Your task to perform on an android device: toggle airplane mode Image 0: 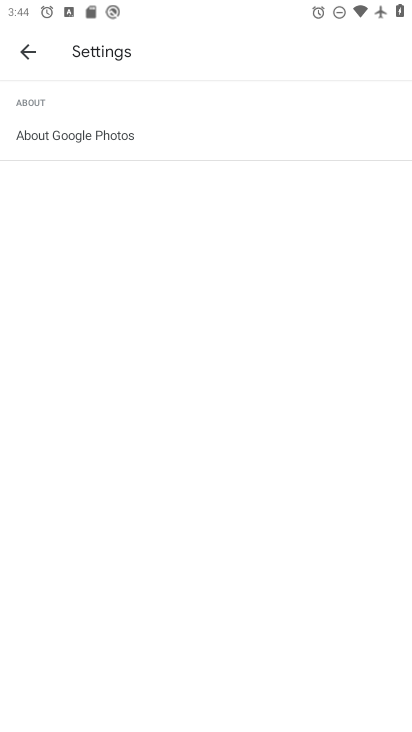
Step 0: press home button
Your task to perform on an android device: toggle airplane mode Image 1: 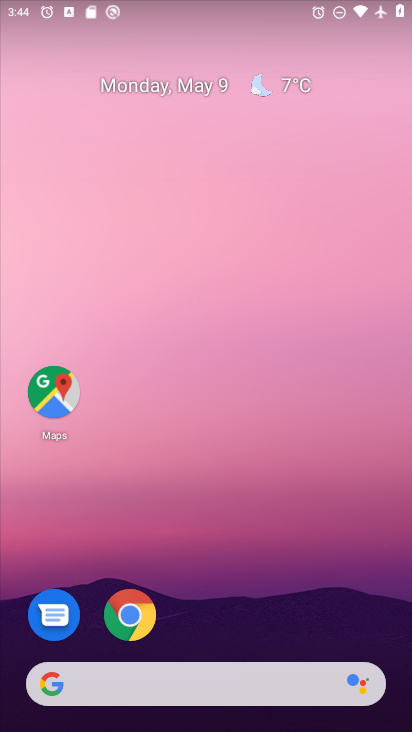
Step 1: drag from (359, 647) to (304, 14)
Your task to perform on an android device: toggle airplane mode Image 2: 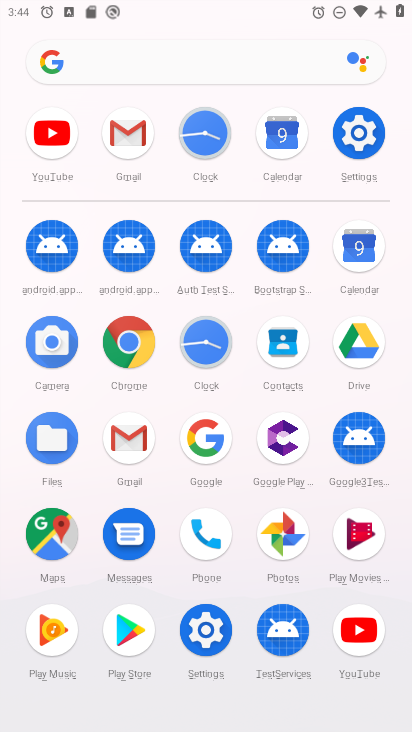
Step 2: click (204, 631)
Your task to perform on an android device: toggle airplane mode Image 3: 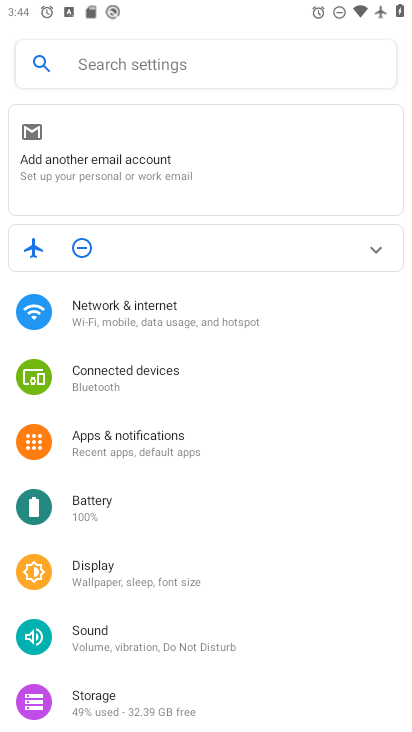
Step 3: click (134, 311)
Your task to perform on an android device: toggle airplane mode Image 4: 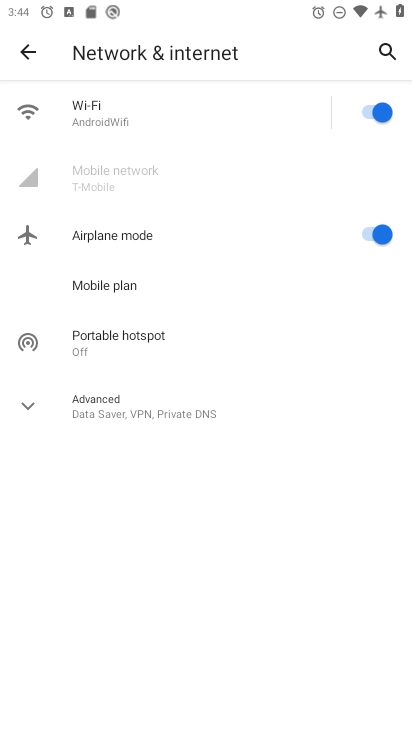
Step 4: click (366, 234)
Your task to perform on an android device: toggle airplane mode Image 5: 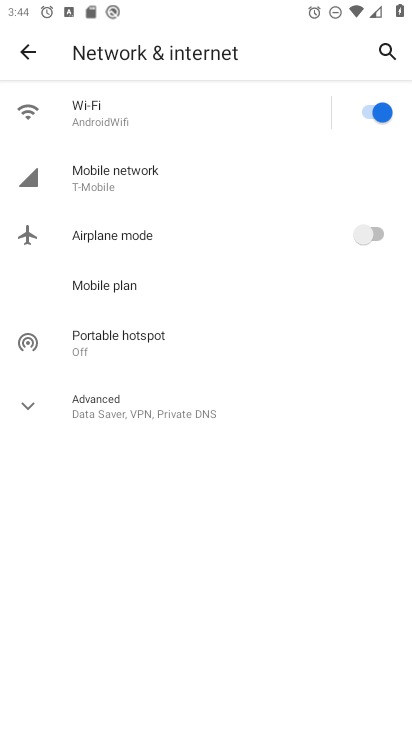
Step 5: task complete